Your task to perform on an android device: Empty the shopping cart on costco. Add razer blackwidow to the cart on costco, then select checkout. Image 0: 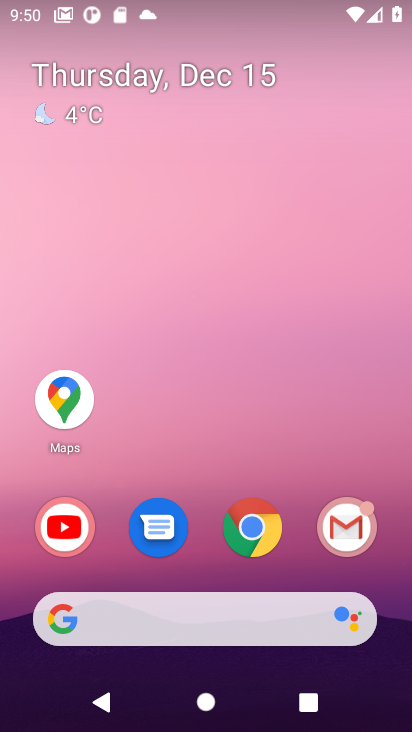
Step 0: click (247, 547)
Your task to perform on an android device: Empty the shopping cart on costco. Add razer blackwidow to the cart on costco, then select checkout. Image 1: 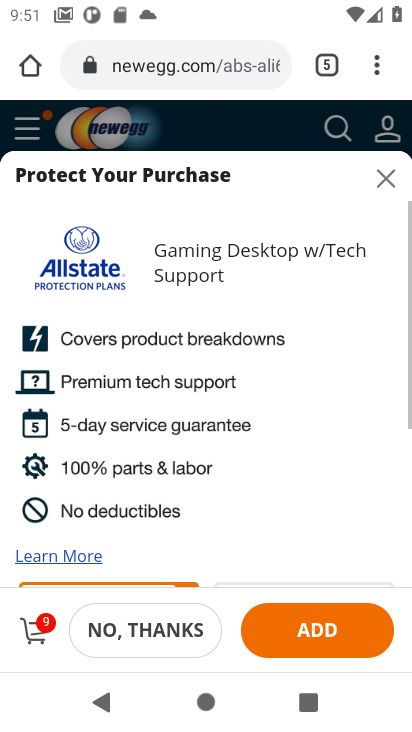
Step 1: click (382, 180)
Your task to perform on an android device: Empty the shopping cart on costco. Add razer blackwidow to the cart on costco, then select checkout. Image 2: 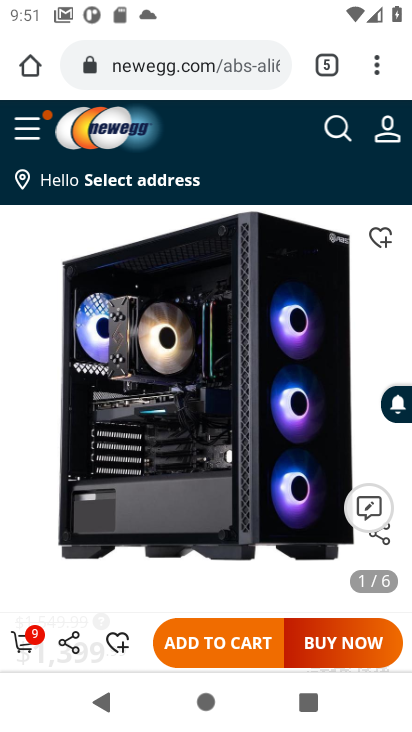
Step 2: click (326, 134)
Your task to perform on an android device: Empty the shopping cart on costco. Add razer blackwidow to the cart on costco, then select checkout. Image 3: 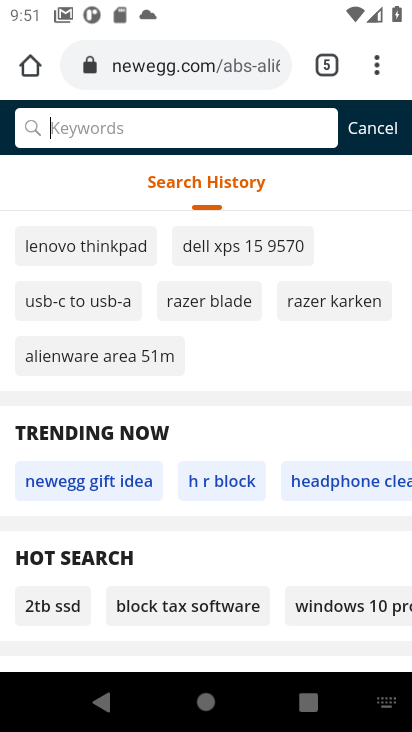
Step 3: type "blackwiod"
Your task to perform on an android device: Empty the shopping cart on costco. Add razer blackwidow to the cart on costco, then select checkout. Image 4: 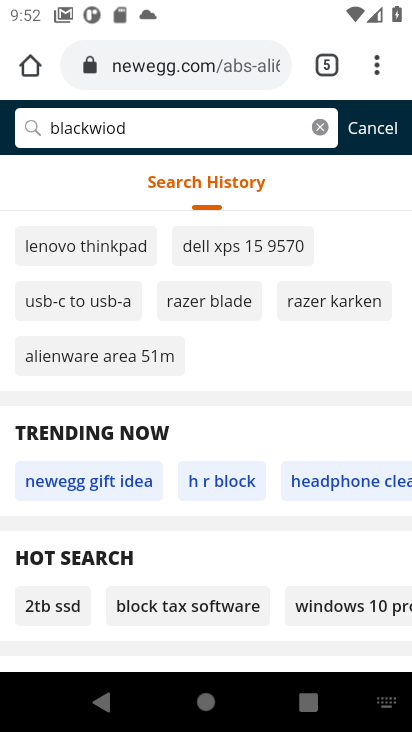
Step 4: task complete